Your task to perform on an android device: find snoozed emails in the gmail app Image 0: 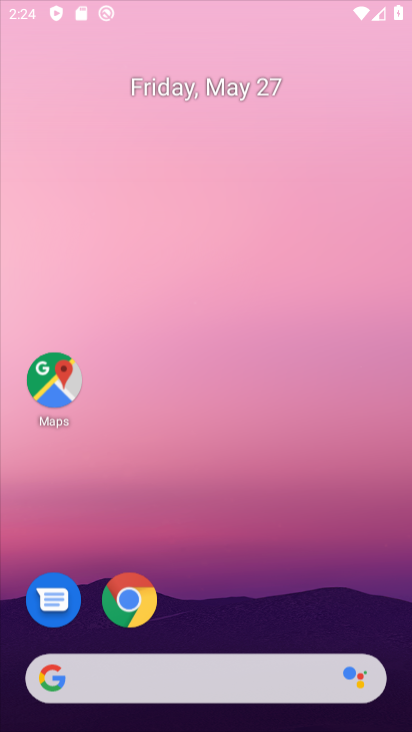
Step 0: click (130, 593)
Your task to perform on an android device: find snoozed emails in the gmail app Image 1: 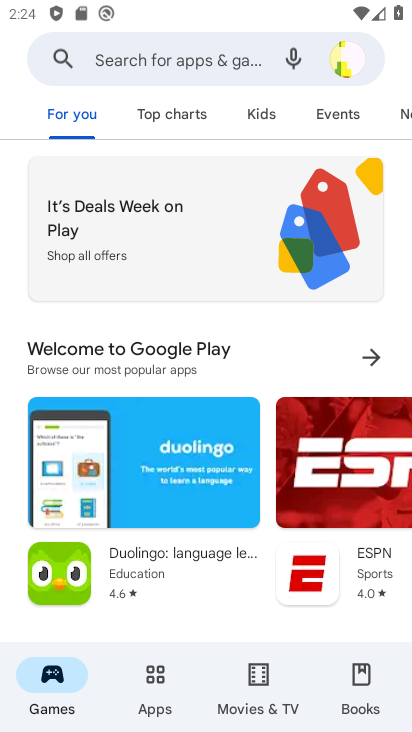
Step 1: press home button
Your task to perform on an android device: find snoozed emails in the gmail app Image 2: 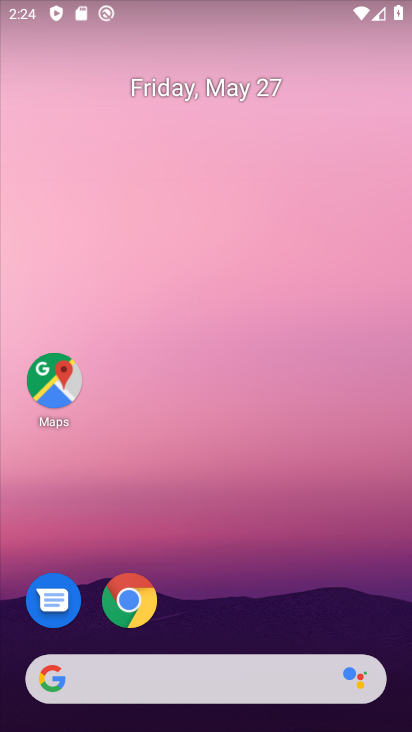
Step 2: drag from (182, 715) to (182, 211)
Your task to perform on an android device: find snoozed emails in the gmail app Image 3: 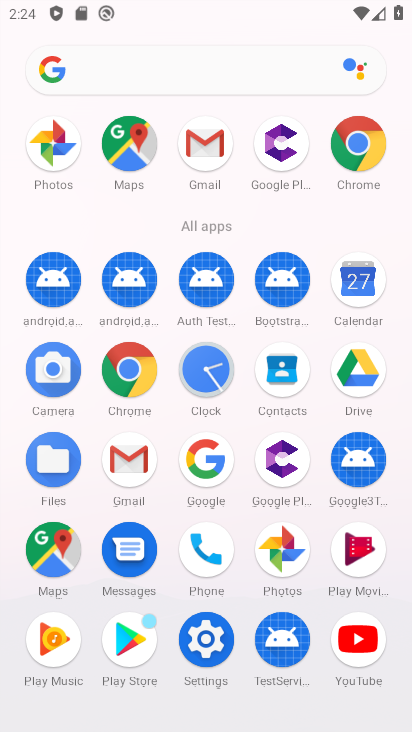
Step 3: click (122, 466)
Your task to perform on an android device: find snoozed emails in the gmail app Image 4: 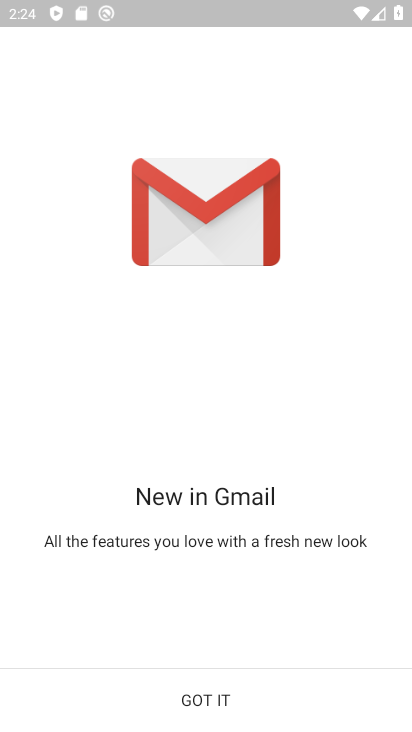
Step 4: click (207, 697)
Your task to perform on an android device: find snoozed emails in the gmail app Image 5: 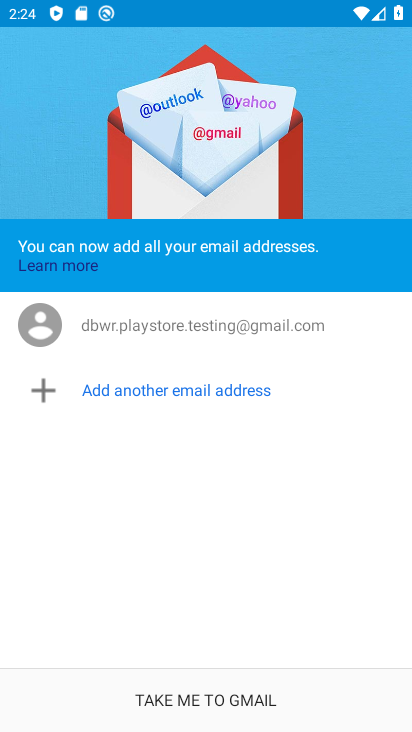
Step 5: click (207, 697)
Your task to perform on an android device: find snoozed emails in the gmail app Image 6: 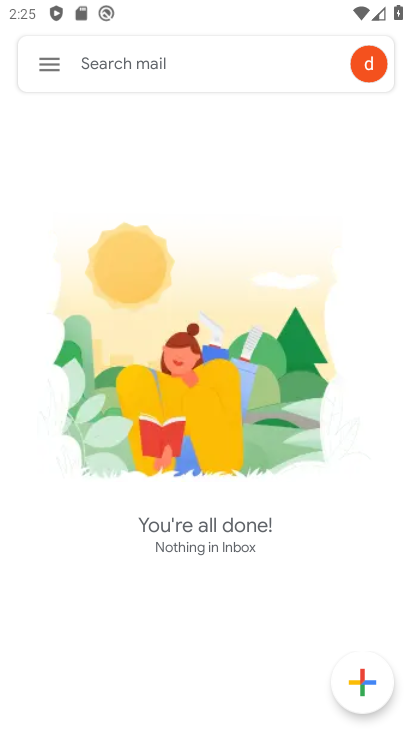
Step 6: click (54, 62)
Your task to perform on an android device: find snoozed emails in the gmail app Image 7: 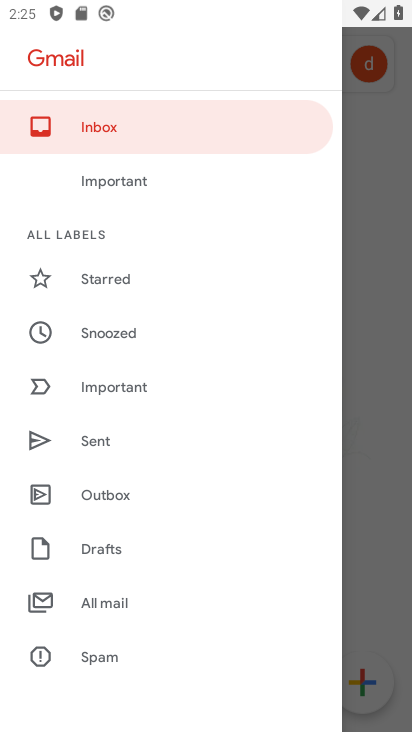
Step 7: drag from (104, 667) to (94, 317)
Your task to perform on an android device: find snoozed emails in the gmail app Image 8: 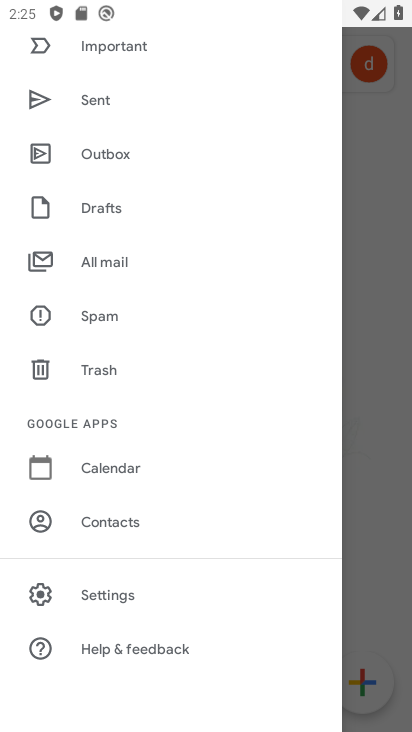
Step 8: drag from (142, 124) to (139, 368)
Your task to perform on an android device: find snoozed emails in the gmail app Image 9: 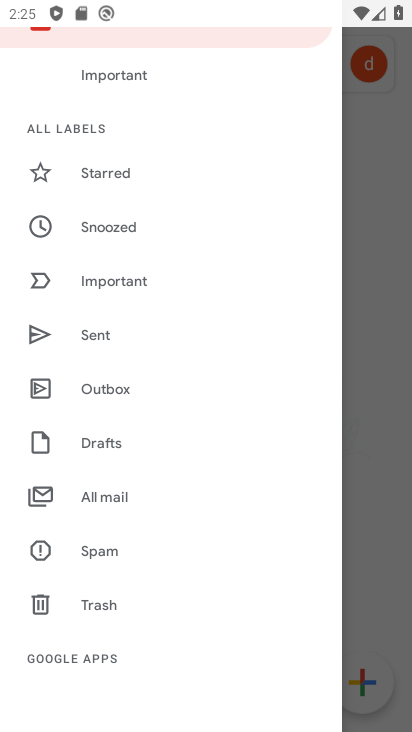
Step 9: click (103, 229)
Your task to perform on an android device: find snoozed emails in the gmail app Image 10: 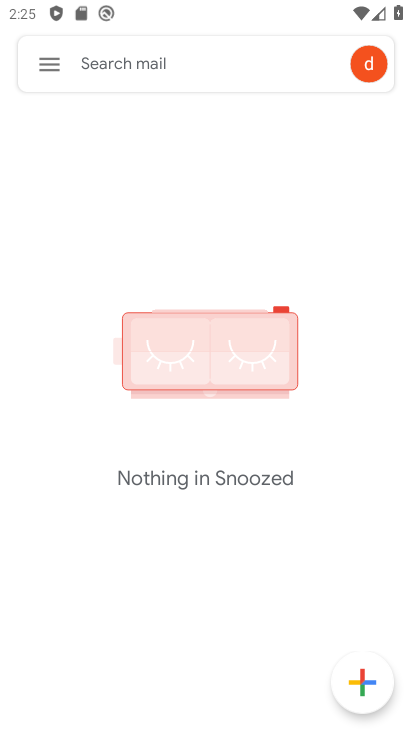
Step 10: task complete